Your task to perform on an android device: turn off wifi Image 0: 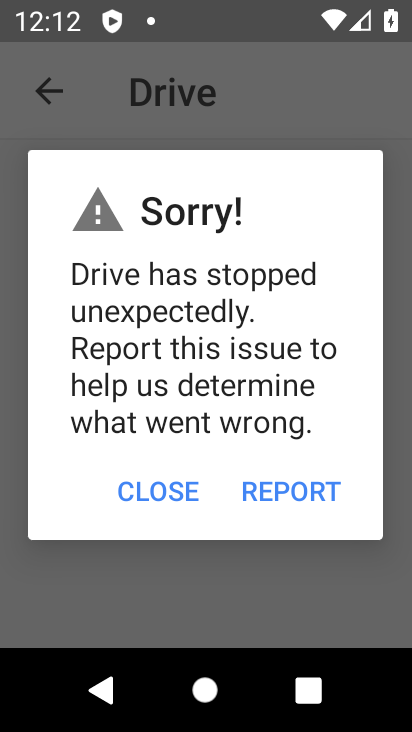
Step 0: press back button
Your task to perform on an android device: turn off wifi Image 1: 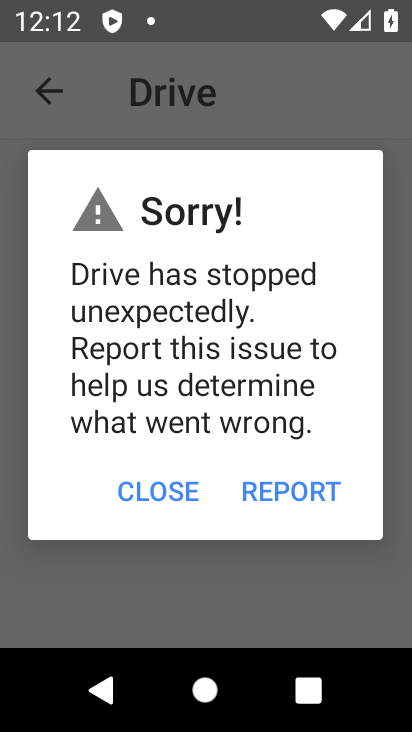
Step 1: press back button
Your task to perform on an android device: turn off wifi Image 2: 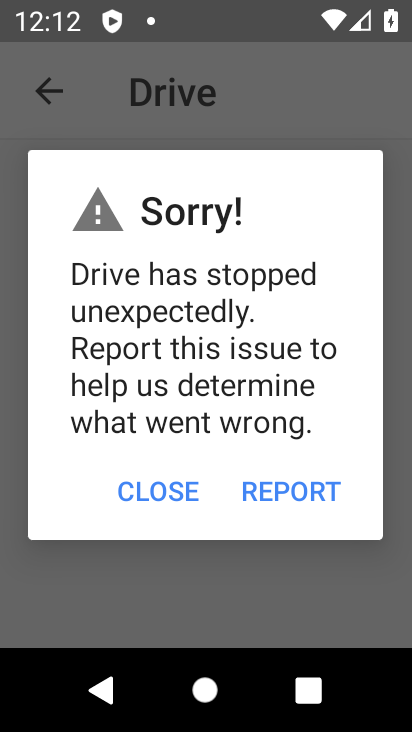
Step 2: press home button
Your task to perform on an android device: turn off wifi Image 3: 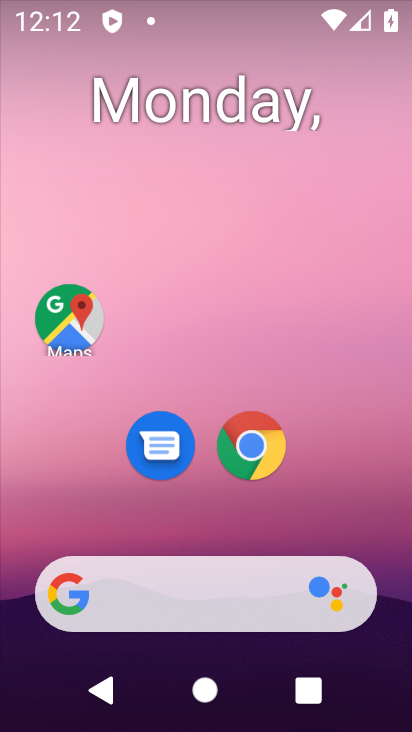
Step 3: drag from (202, 391) to (274, 98)
Your task to perform on an android device: turn off wifi Image 4: 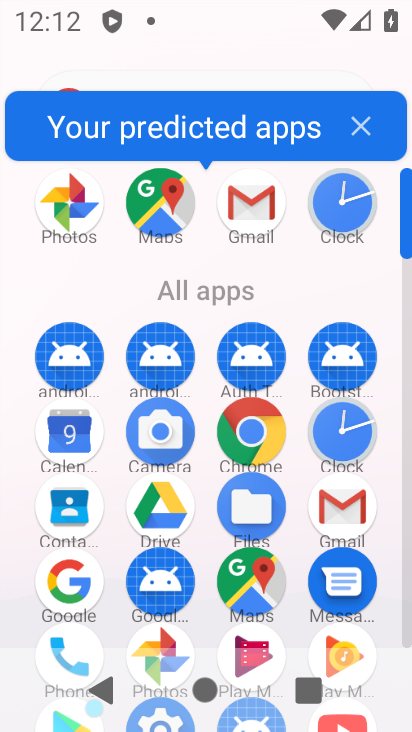
Step 4: drag from (291, 653) to (324, 446)
Your task to perform on an android device: turn off wifi Image 5: 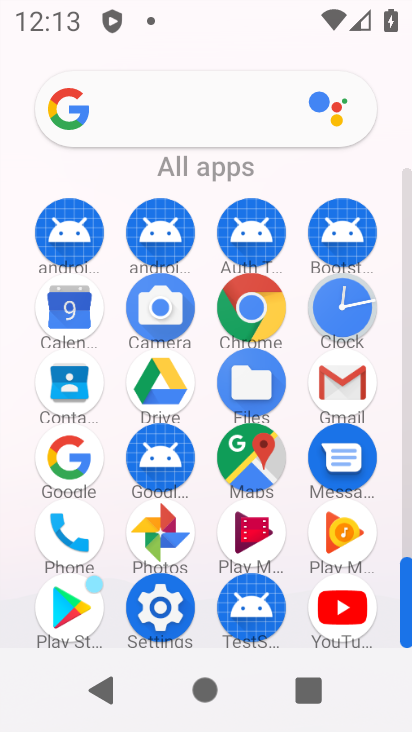
Step 5: click (174, 601)
Your task to perform on an android device: turn off wifi Image 6: 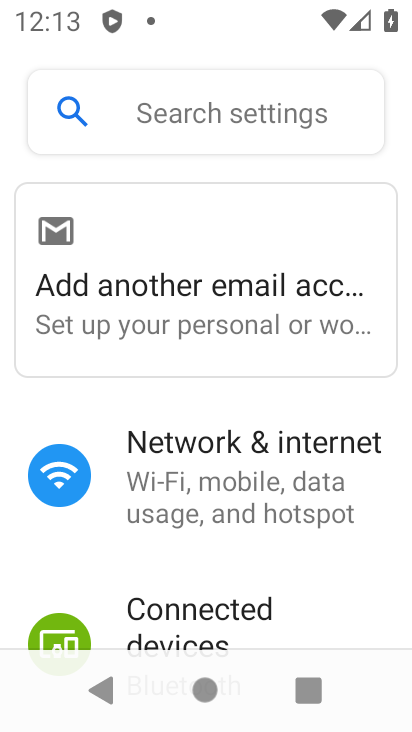
Step 6: click (337, 473)
Your task to perform on an android device: turn off wifi Image 7: 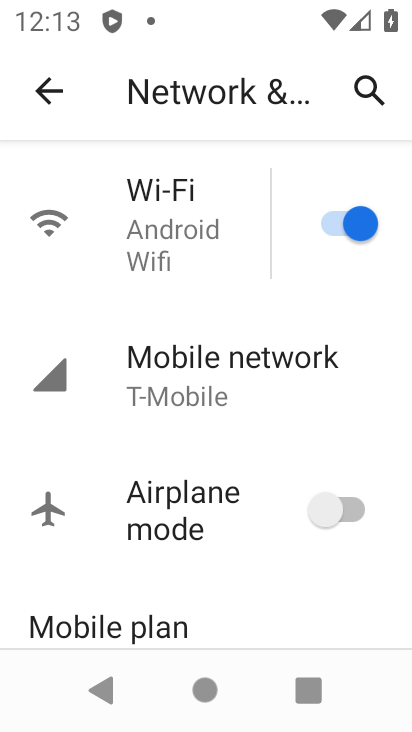
Step 7: click (332, 231)
Your task to perform on an android device: turn off wifi Image 8: 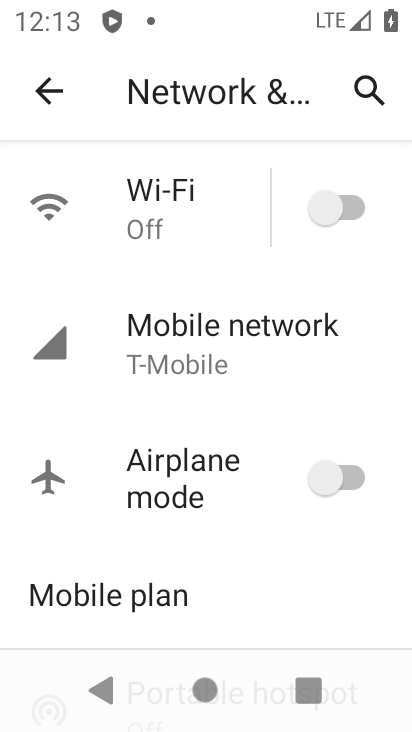
Step 8: task complete